Your task to perform on an android device: Show me productivity apps on the Play Store Image 0: 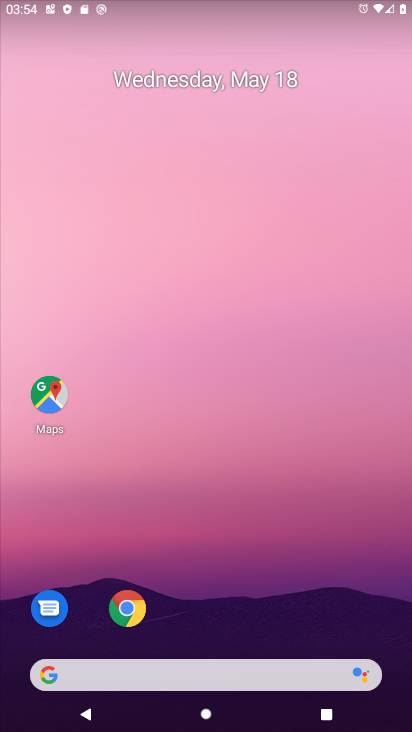
Step 0: drag from (193, 625) to (238, 223)
Your task to perform on an android device: Show me productivity apps on the Play Store Image 1: 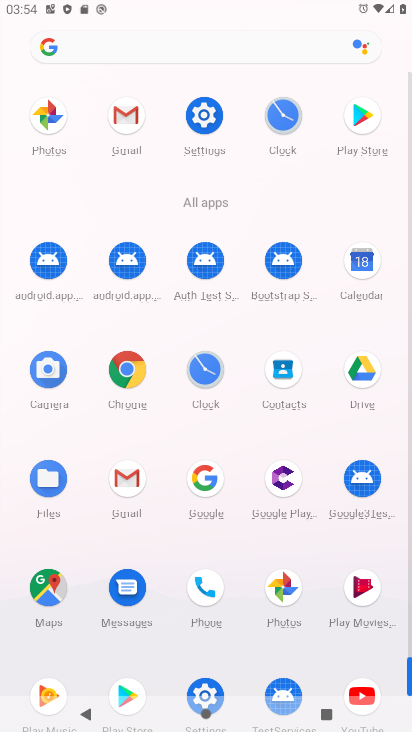
Step 1: click (209, 94)
Your task to perform on an android device: Show me productivity apps on the Play Store Image 2: 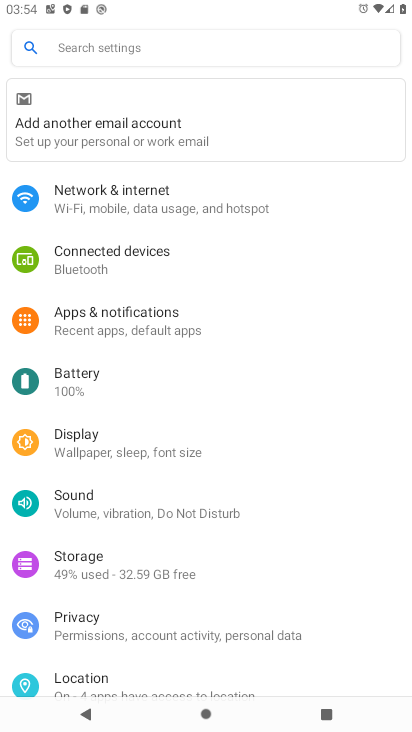
Step 2: press home button
Your task to perform on an android device: Show me productivity apps on the Play Store Image 3: 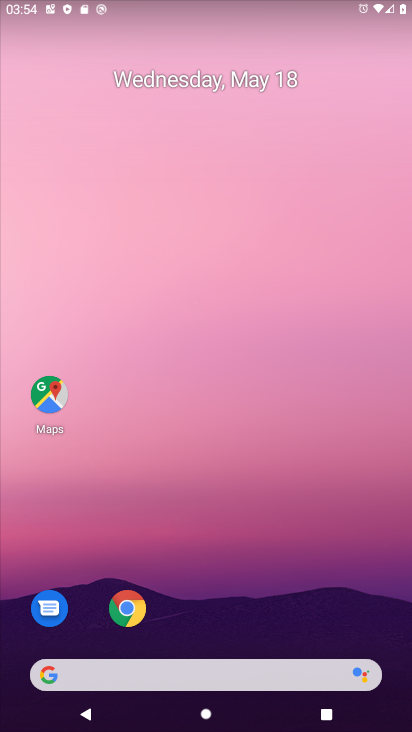
Step 3: drag from (182, 629) to (301, 82)
Your task to perform on an android device: Show me productivity apps on the Play Store Image 4: 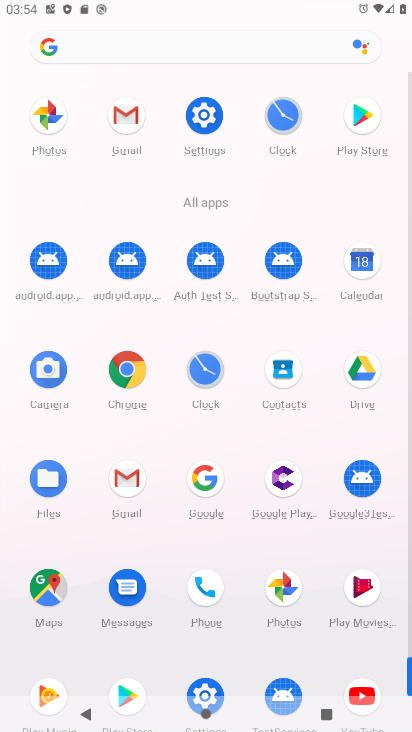
Step 4: click (362, 109)
Your task to perform on an android device: Show me productivity apps on the Play Store Image 5: 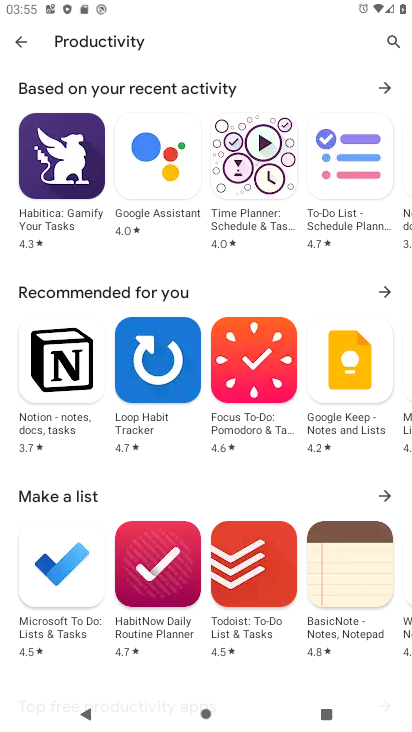
Step 5: task complete